Your task to perform on an android device: turn on translation in the chrome app Image 0: 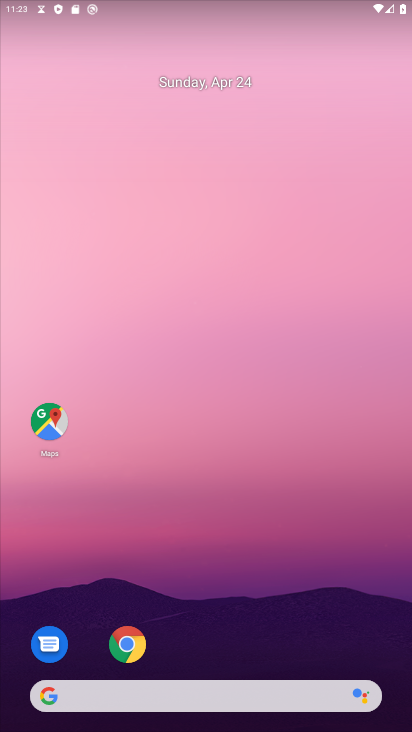
Step 0: click (135, 645)
Your task to perform on an android device: turn on translation in the chrome app Image 1: 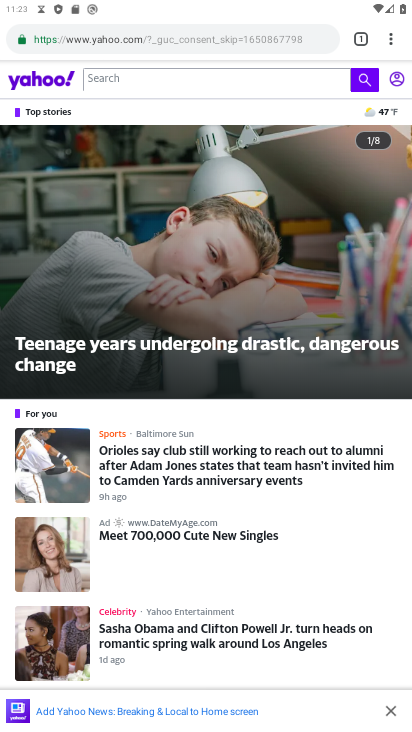
Step 1: drag from (393, 42) to (244, 471)
Your task to perform on an android device: turn on translation in the chrome app Image 2: 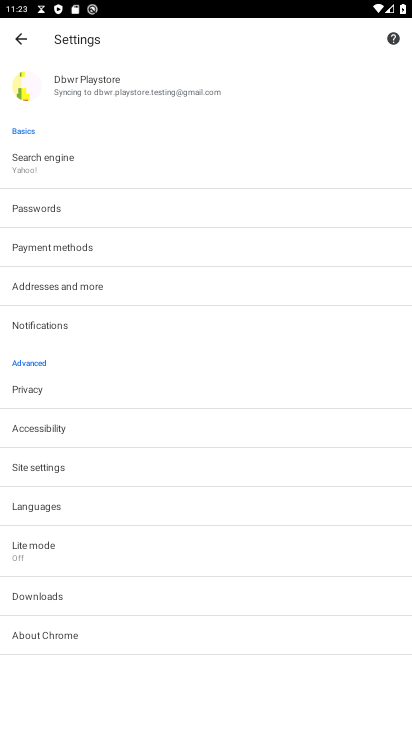
Step 2: click (62, 503)
Your task to perform on an android device: turn on translation in the chrome app Image 3: 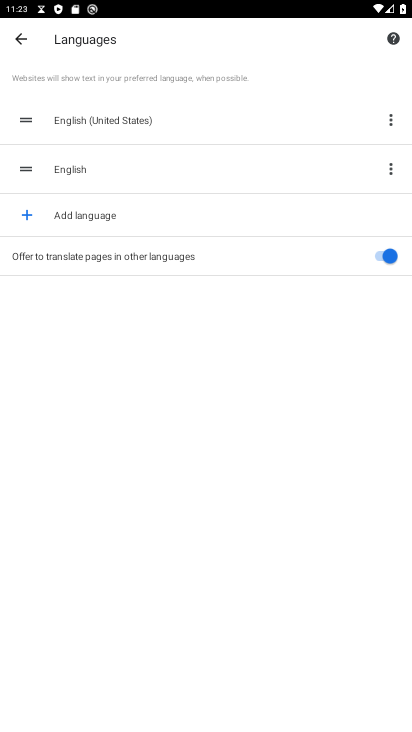
Step 3: task complete